Your task to perform on an android device: Open network settings Image 0: 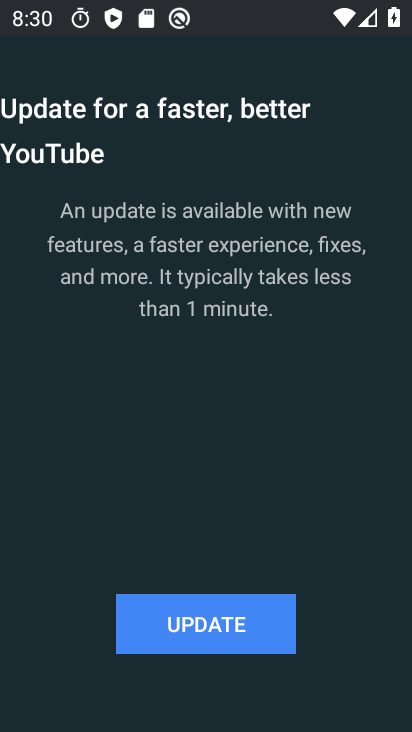
Step 0: press back button
Your task to perform on an android device: Open network settings Image 1: 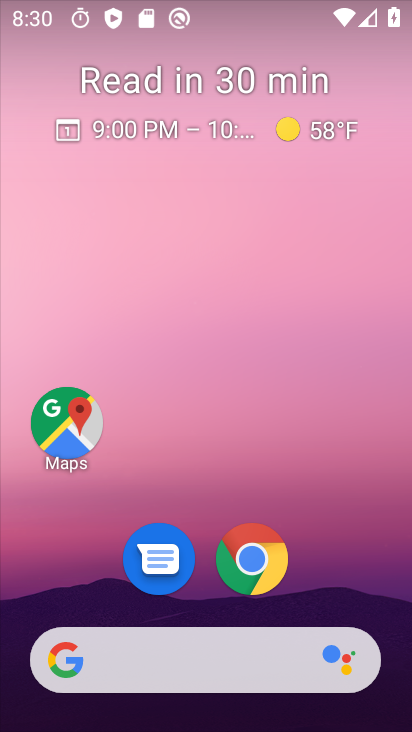
Step 1: drag from (350, 557) to (258, 173)
Your task to perform on an android device: Open network settings Image 2: 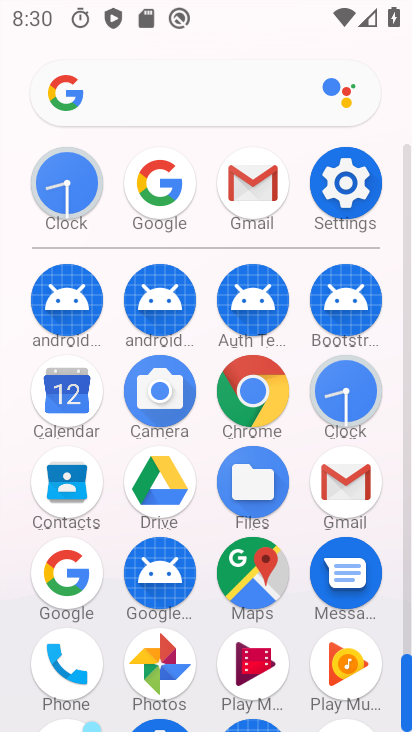
Step 2: click (344, 183)
Your task to perform on an android device: Open network settings Image 3: 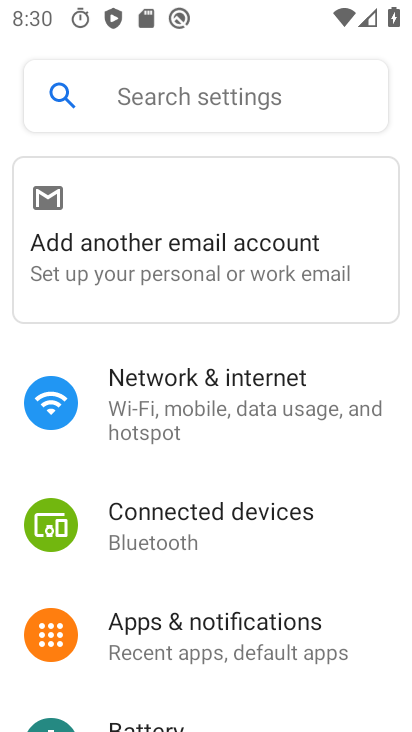
Step 3: click (217, 378)
Your task to perform on an android device: Open network settings Image 4: 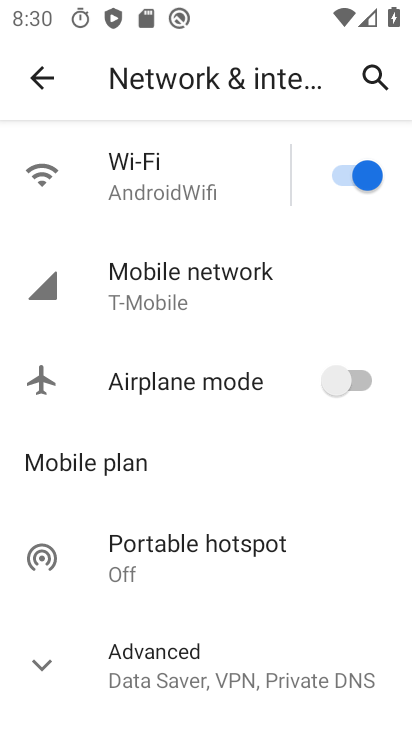
Step 4: click (225, 288)
Your task to perform on an android device: Open network settings Image 5: 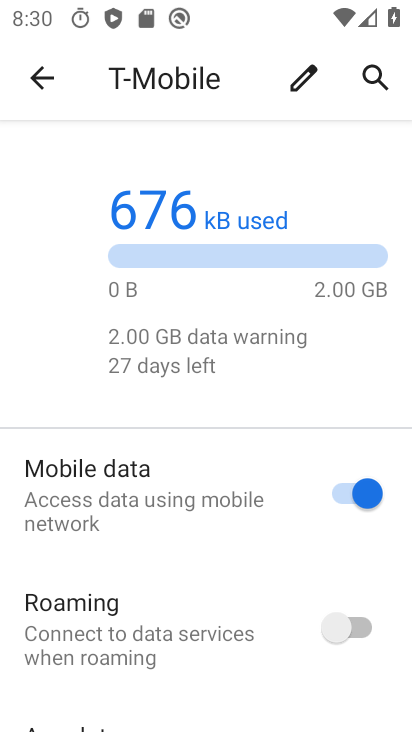
Step 5: task complete